Your task to perform on an android device: Find coffee shops on Maps Image 0: 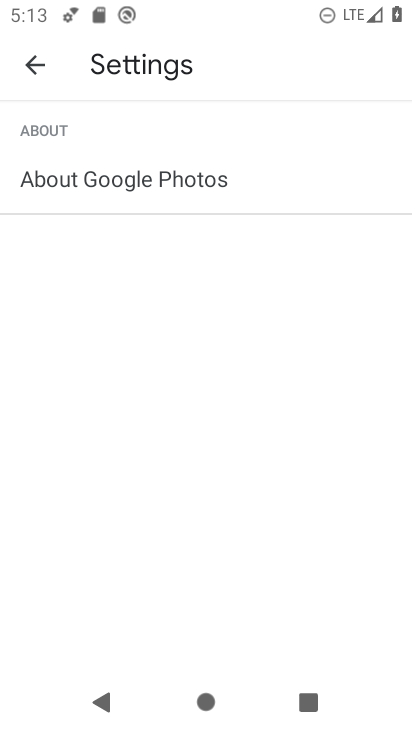
Step 0: press home button
Your task to perform on an android device: Find coffee shops on Maps Image 1: 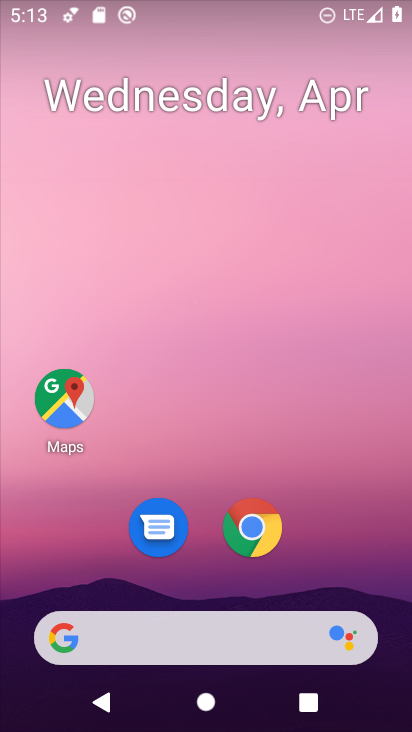
Step 1: click (66, 403)
Your task to perform on an android device: Find coffee shops on Maps Image 2: 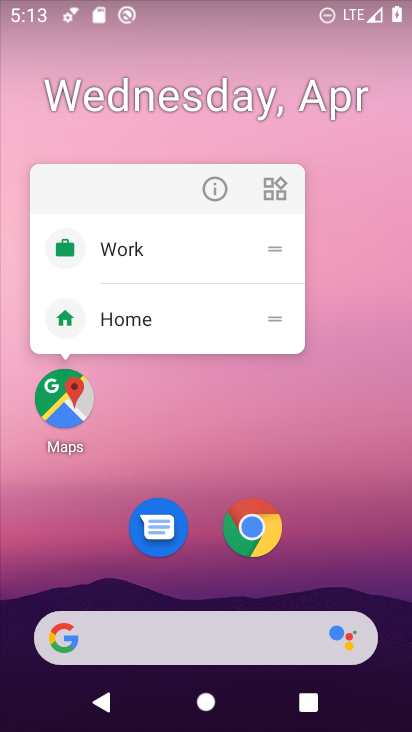
Step 2: click (66, 403)
Your task to perform on an android device: Find coffee shops on Maps Image 3: 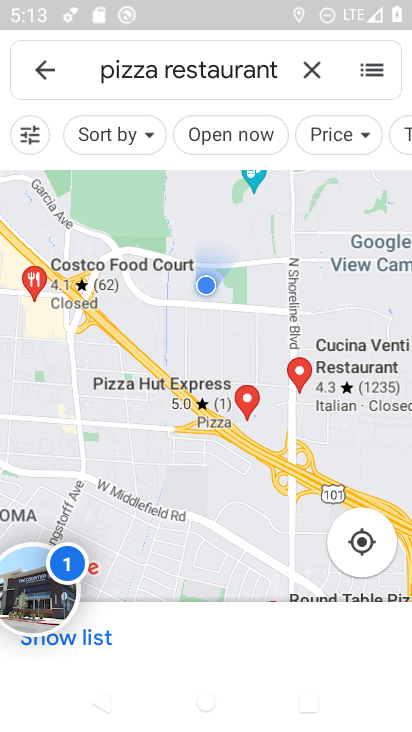
Step 3: click (305, 68)
Your task to perform on an android device: Find coffee shops on Maps Image 4: 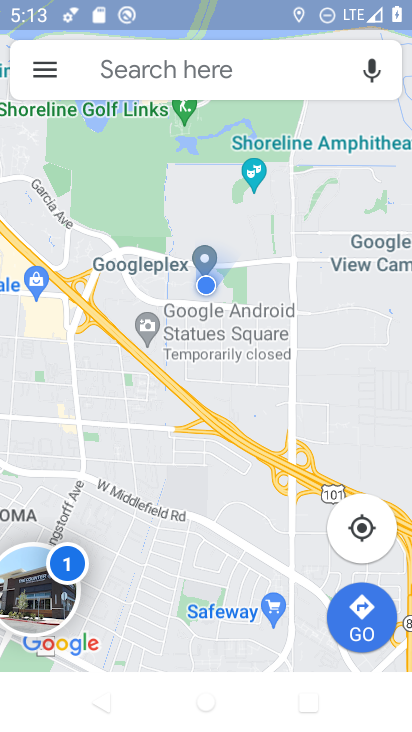
Step 4: click (114, 77)
Your task to perform on an android device: Find coffee shops on Maps Image 5: 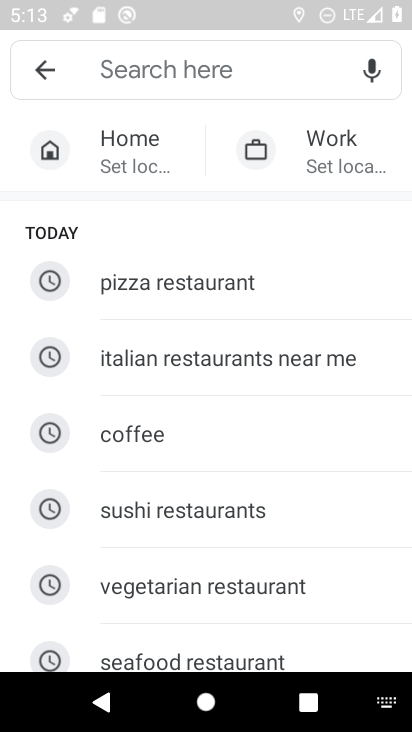
Step 5: type "coffee shops"
Your task to perform on an android device: Find coffee shops on Maps Image 6: 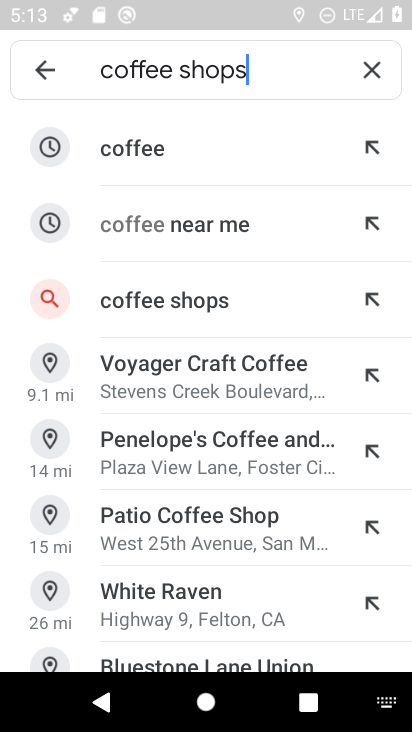
Step 6: click (174, 306)
Your task to perform on an android device: Find coffee shops on Maps Image 7: 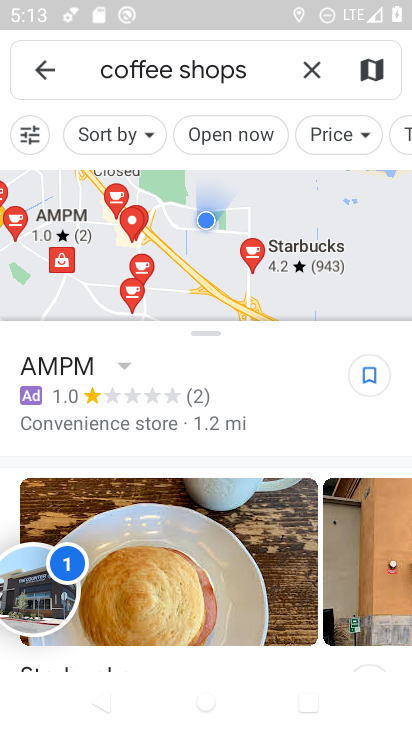
Step 7: task complete